Your task to perform on an android device: Open internet settings Image 0: 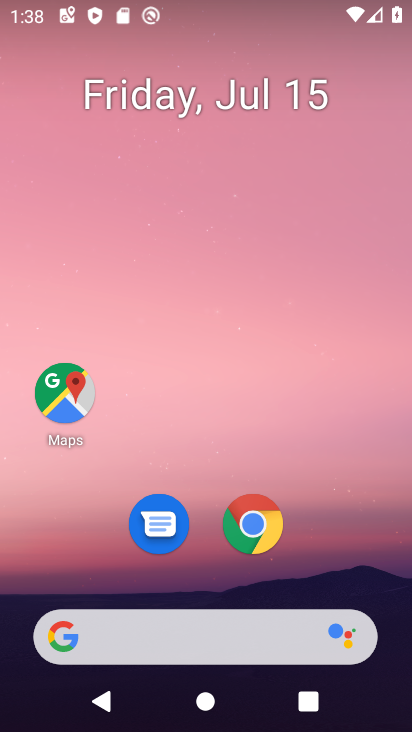
Step 0: press home button
Your task to perform on an android device: Open internet settings Image 1: 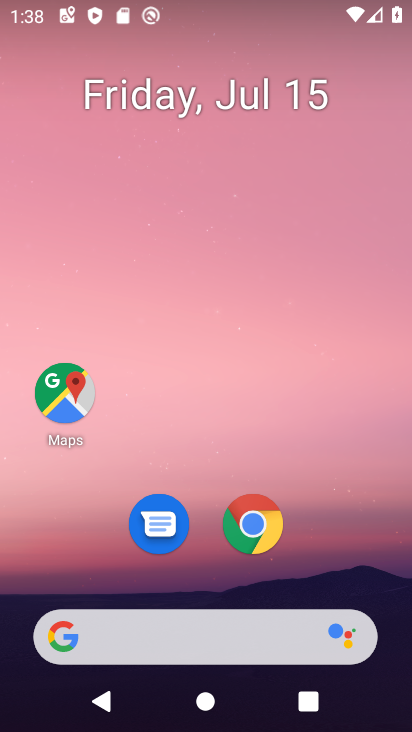
Step 1: drag from (192, 641) to (323, 142)
Your task to perform on an android device: Open internet settings Image 2: 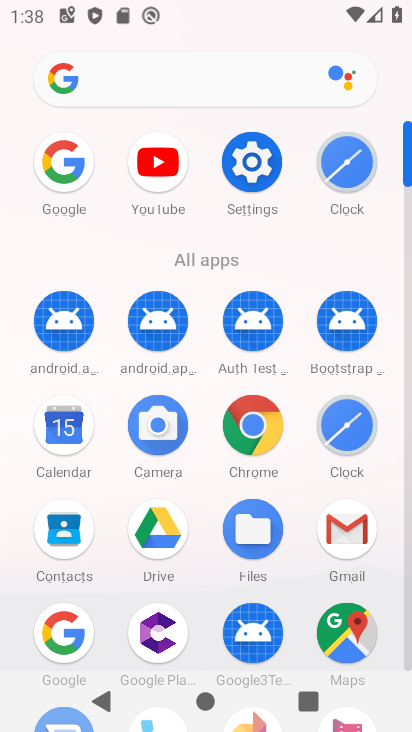
Step 2: click (260, 158)
Your task to perform on an android device: Open internet settings Image 3: 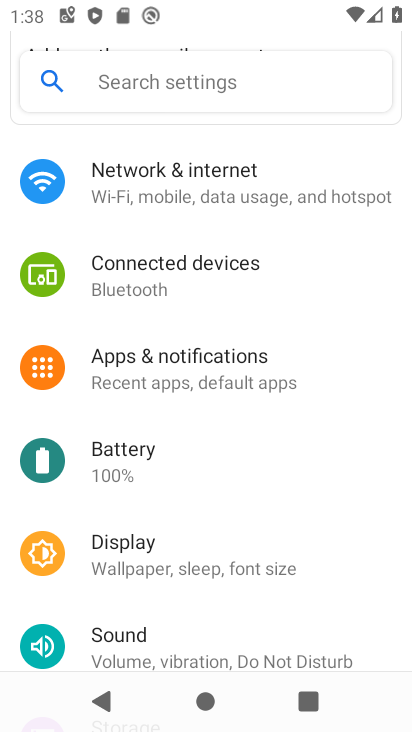
Step 3: click (227, 179)
Your task to perform on an android device: Open internet settings Image 4: 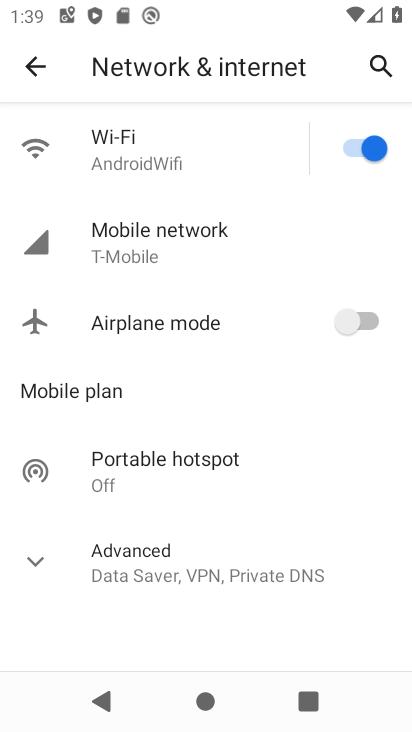
Step 4: task complete